Your task to perform on an android device: see creations saved in the google photos Image 0: 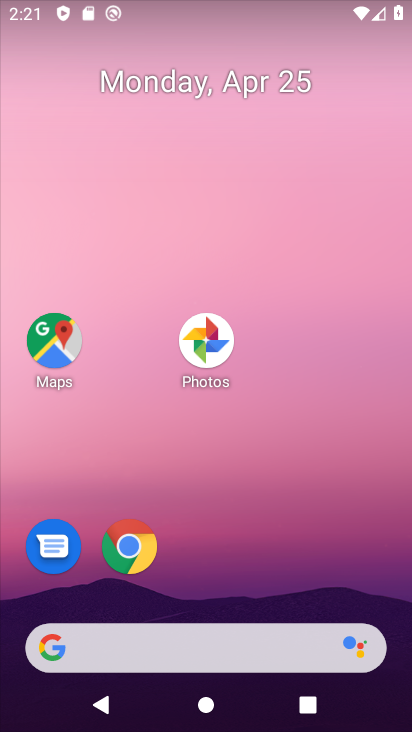
Step 0: drag from (274, 452) to (266, 279)
Your task to perform on an android device: see creations saved in the google photos Image 1: 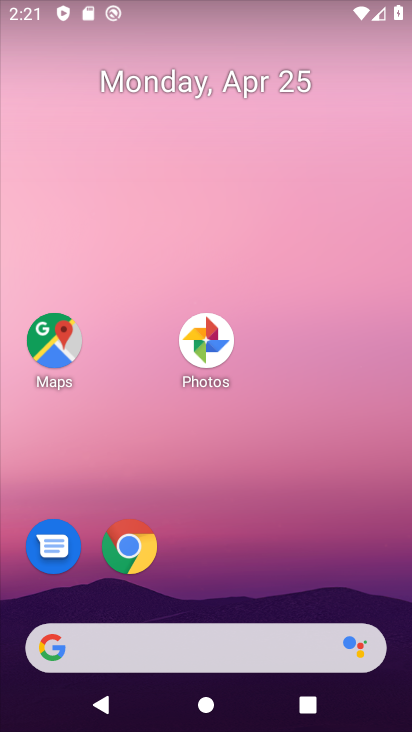
Step 1: drag from (271, 596) to (283, 273)
Your task to perform on an android device: see creations saved in the google photos Image 2: 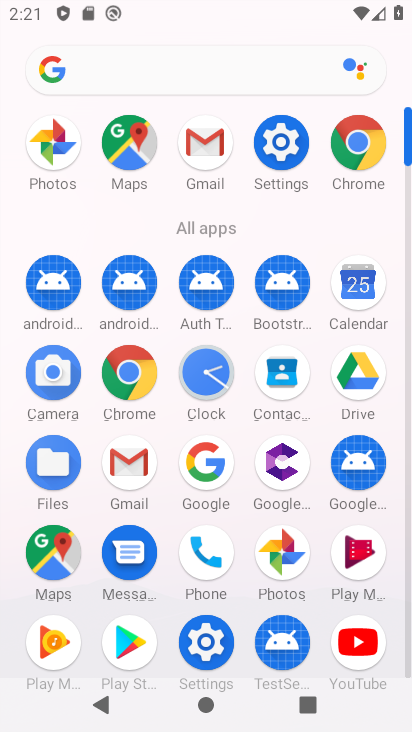
Step 2: click (283, 548)
Your task to perform on an android device: see creations saved in the google photos Image 3: 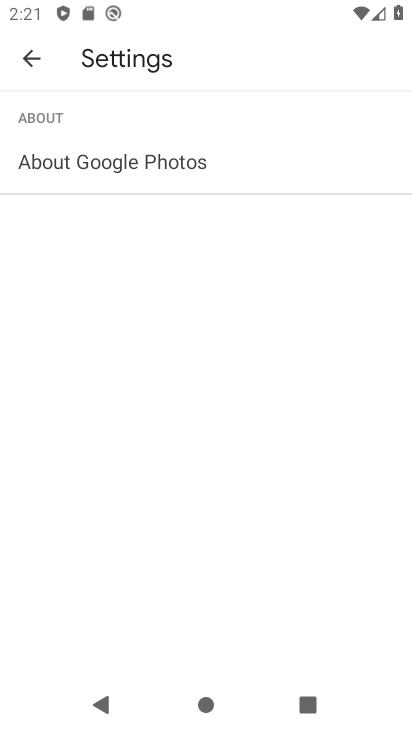
Step 3: click (36, 64)
Your task to perform on an android device: see creations saved in the google photos Image 4: 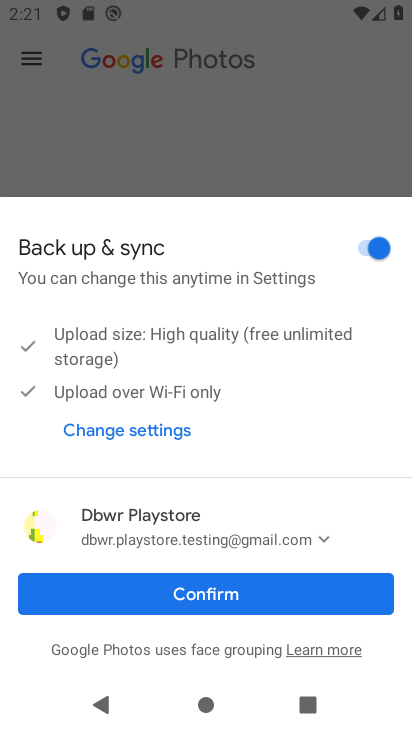
Step 4: click (188, 601)
Your task to perform on an android device: see creations saved in the google photos Image 5: 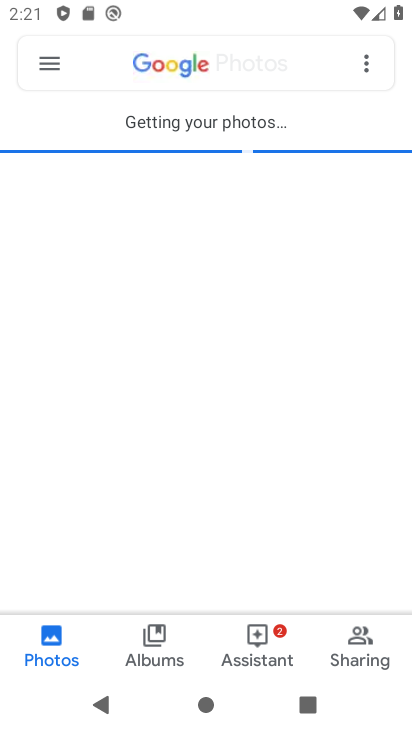
Step 5: click (154, 632)
Your task to perform on an android device: see creations saved in the google photos Image 6: 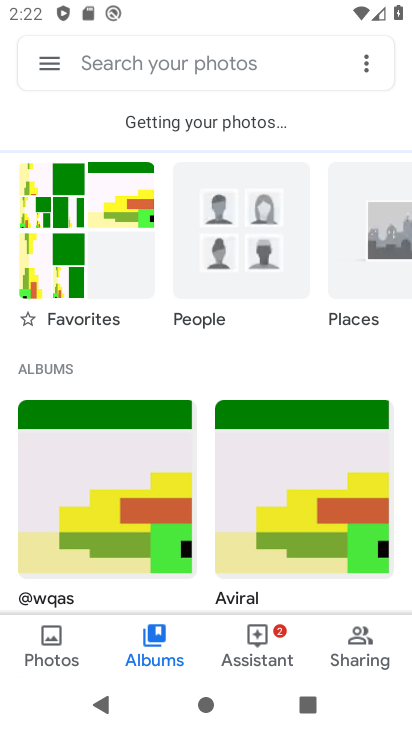
Step 6: click (59, 224)
Your task to perform on an android device: see creations saved in the google photos Image 7: 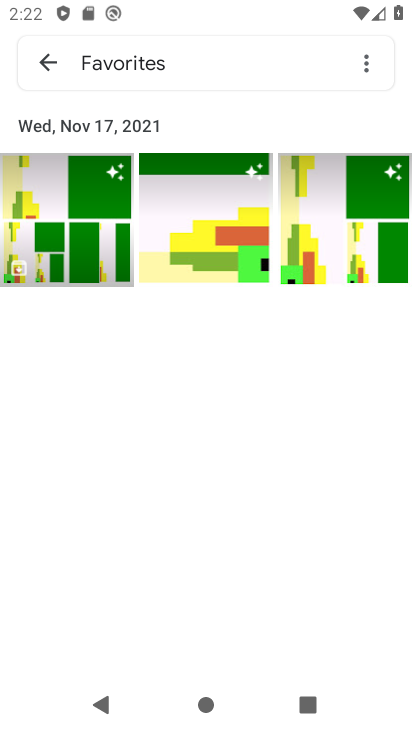
Step 7: task complete